Your task to perform on an android device: open wifi settings Image 0: 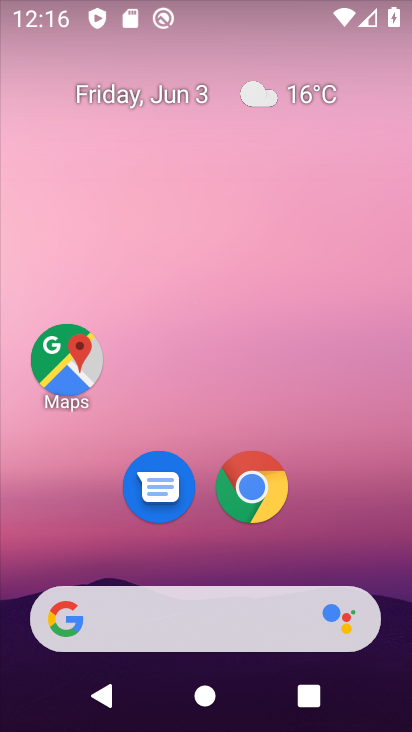
Step 0: drag from (193, 600) to (116, 5)
Your task to perform on an android device: open wifi settings Image 1: 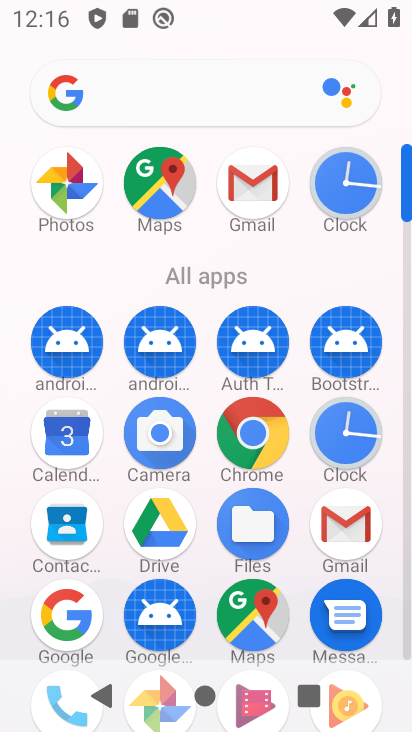
Step 1: drag from (302, 579) to (249, 33)
Your task to perform on an android device: open wifi settings Image 2: 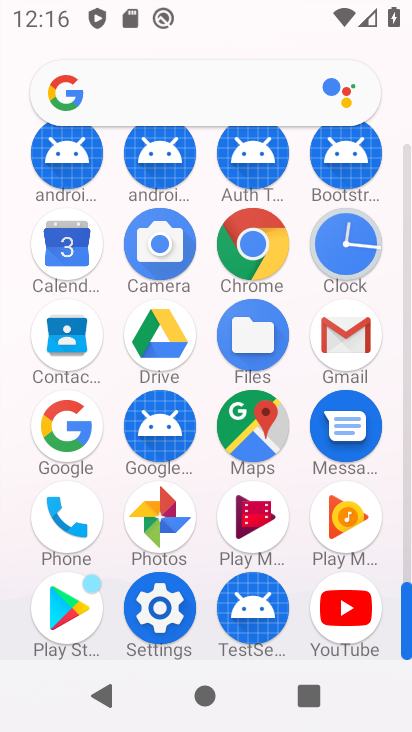
Step 2: click (159, 603)
Your task to perform on an android device: open wifi settings Image 3: 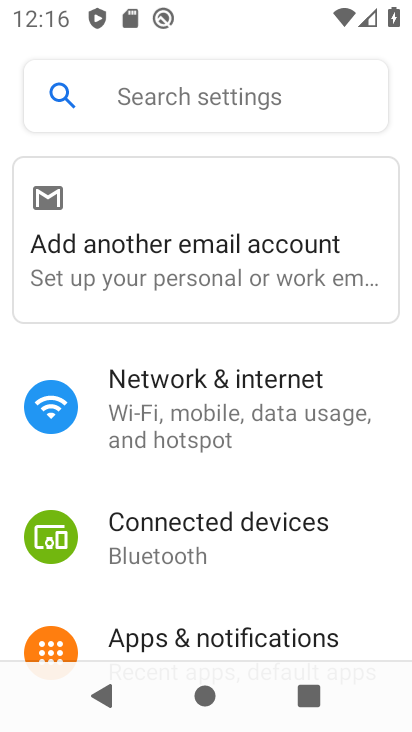
Step 3: click (194, 398)
Your task to perform on an android device: open wifi settings Image 4: 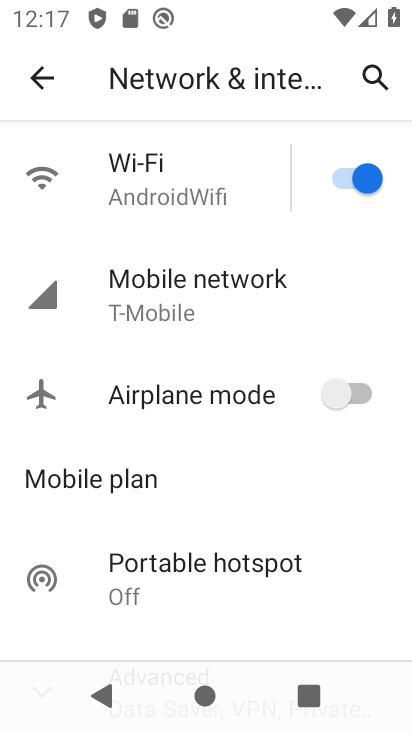
Step 4: click (146, 172)
Your task to perform on an android device: open wifi settings Image 5: 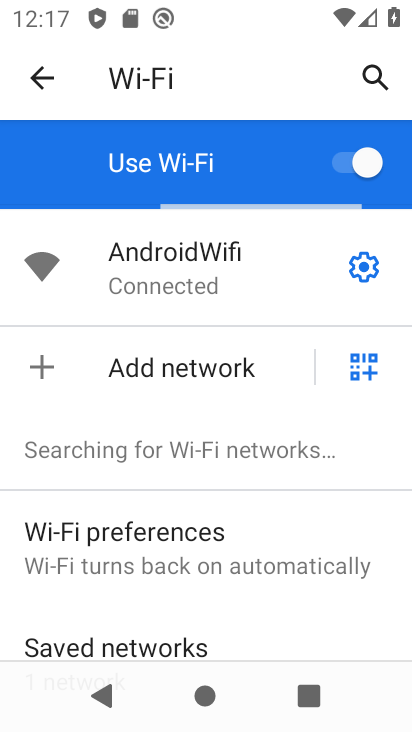
Step 5: task complete